Your task to perform on an android device: visit the assistant section in the google photos Image 0: 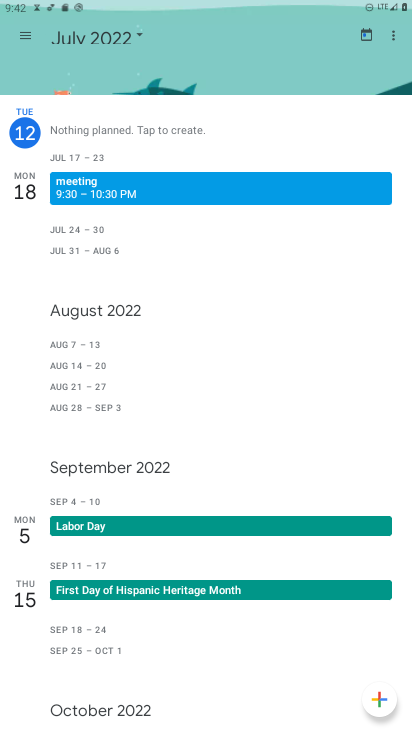
Step 0: press home button
Your task to perform on an android device: visit the assistant section in the google photos Image 1: 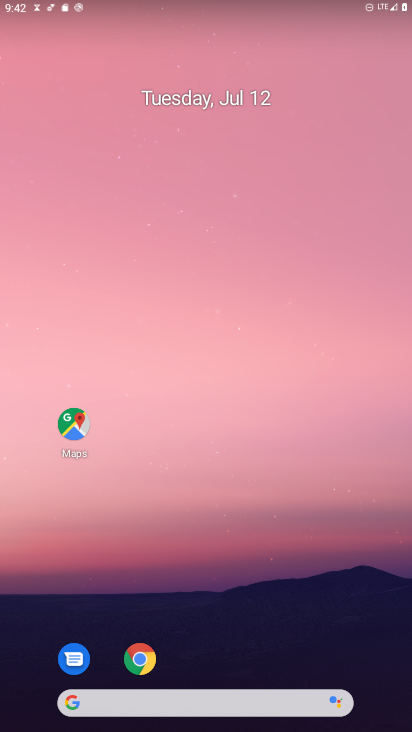
Step 1: drag from (227, 707) to (172, 163)
Your task to perform on an android device: visit the assistant section in the google photos Image 2: 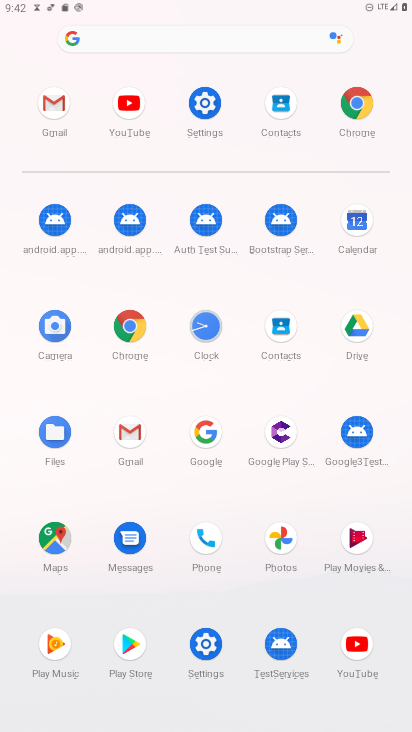
Step 2: click (282, 537)
Your task to perform on an android device: visit the assistant section in the google photos Image 3: 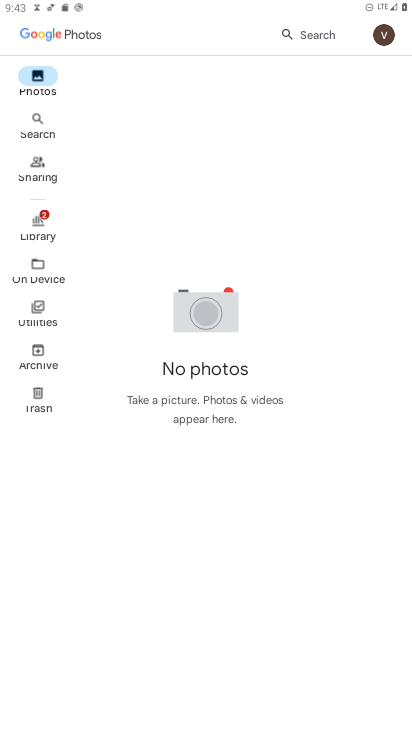
Step 3: click (42, 313)
Your task to perform on an android device: visit the assistant section in the google photos Image 4: 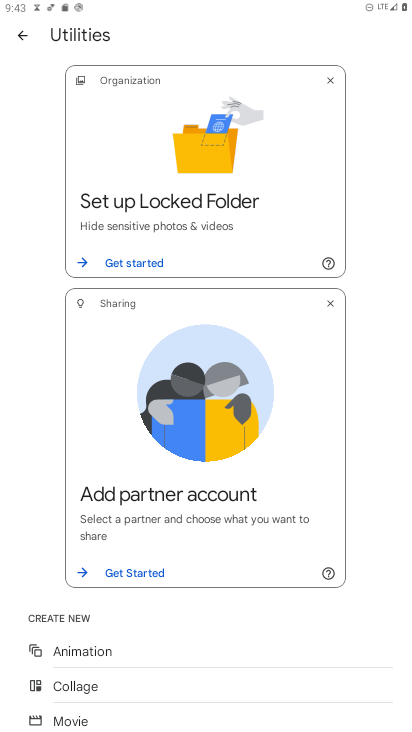
Step 4: press back button
Your task to perform on an android device: visit the assistant section in the google photos Image 5: 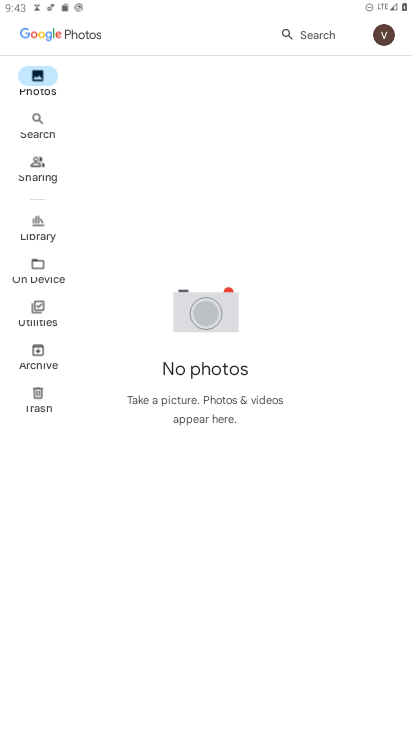
Step 5: click (37, 351)
Your task to perform on an android device: visit the assistant section in the google photos Image 6: 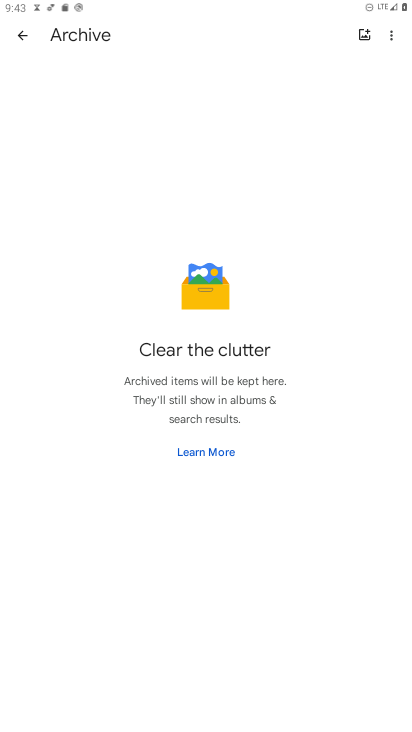
Step 6: press back button
Your task to perform on an android device: visit the assistant section in the google photos Image 7: 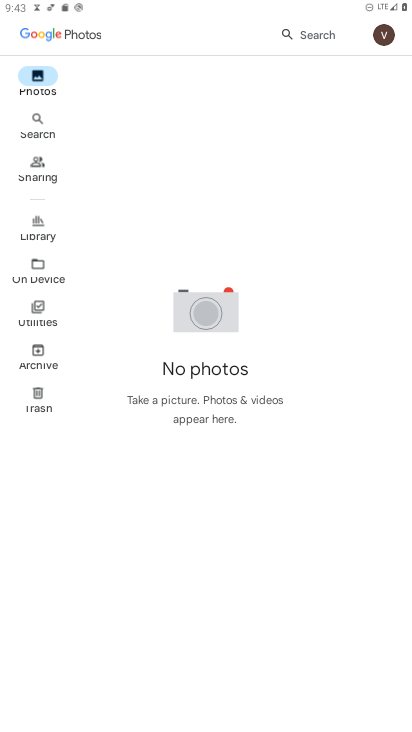
Step 7: click (41, 73)
Your task to perform on an android device: visit the assistant section in the google photos Image 8: 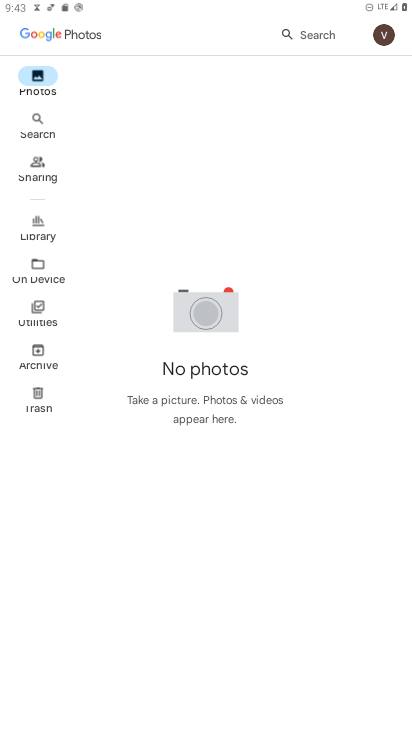
Step 8: click (45, 133)
Your task to perform on an android device: visit the assistant section in the google photos Image 9: 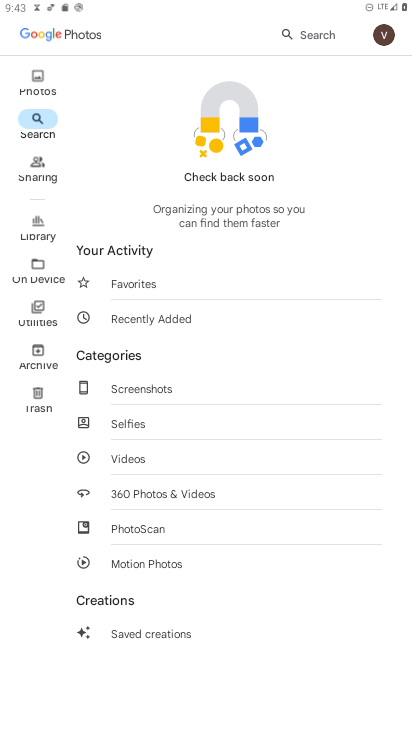
Step 9: click (40, 391)
Your task to perform on an android device: visit the assistant section in the google photos Image 10: 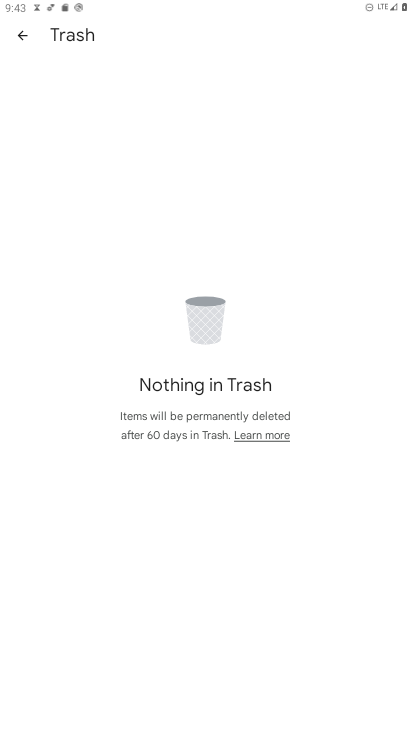
Step 10: task complete